Your task to perform on an android device: Open the Play Movies app and select the watchlist tab. Image 0: 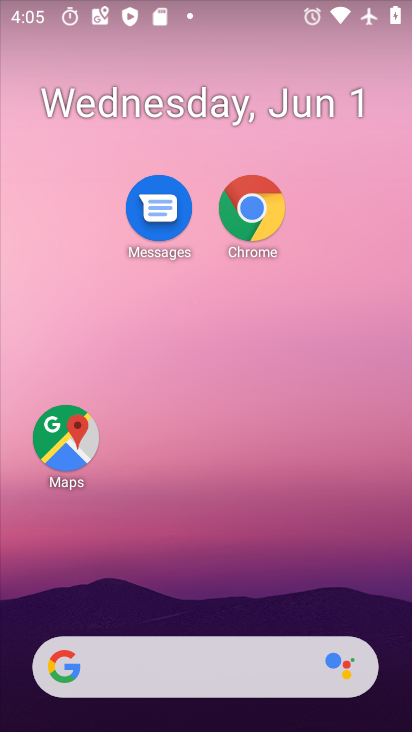
Step 0: drag from (215, 605) to (187, 279)
Your task to perform on an android device: Open the Play Movies app and select the watchlist tab. Image 1: 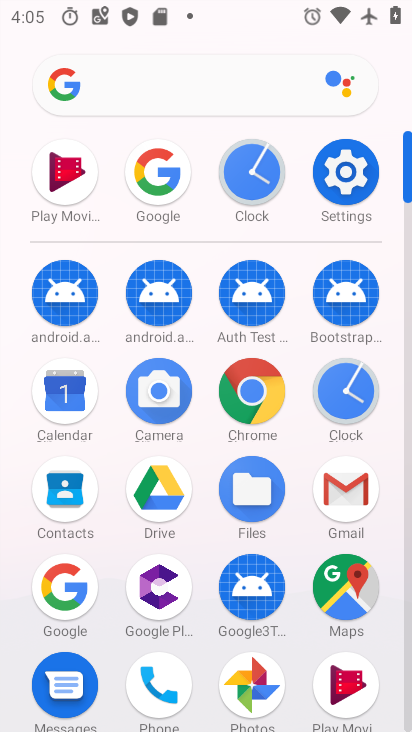
Step 1: drag from (279, 604) to (275, 372)
Your task to perform on an android device: Open the Play Movies app and select the watchlist tab. Image 2: 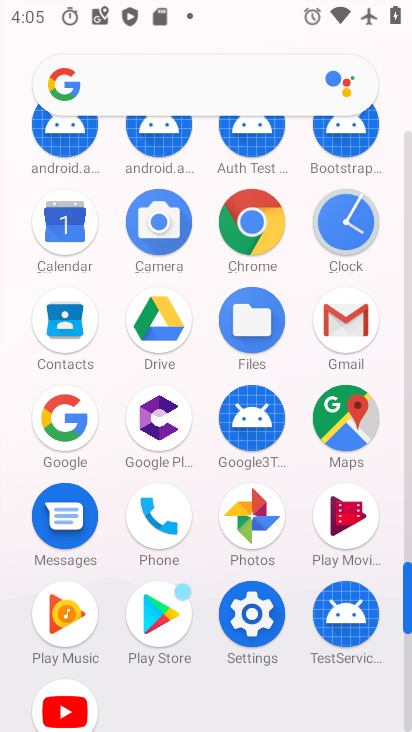
Step 2: click (346, 519)
Your task to perform on an android device: Open the Play Movies app and select the watchlist tab. Image 3: 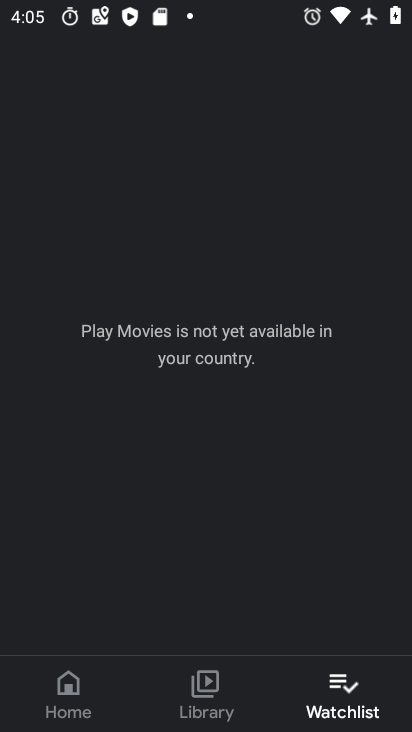
Step 3: task complete